Your task to perform on an android device: see creations saved in the google photos Image 0: 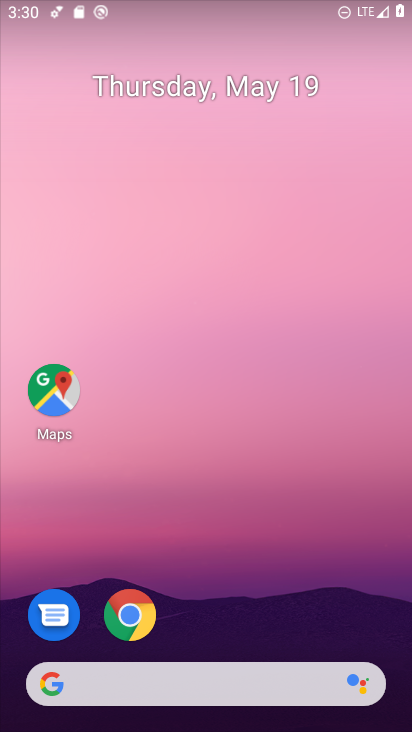
Step 0: drag from (247, 598) to (195, 30)
Your task to perform on an android device: see creations saved in the google photos Image 1: 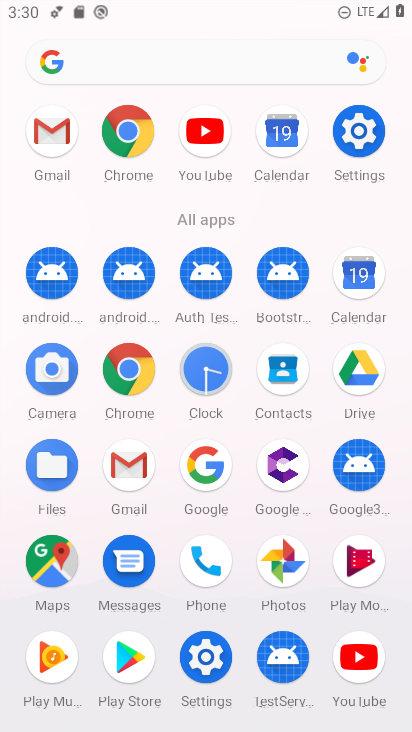
Step 1: click (289, 558)
Your task to perform on an android device: see creations saved in the google photos Image 2: 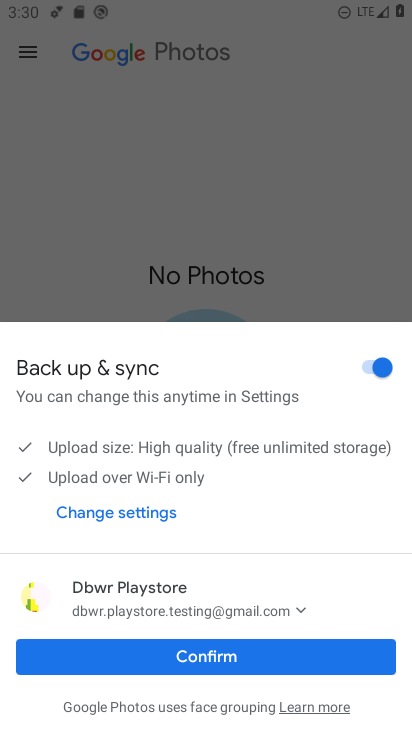
Step 2: click (284, 653)
Your task to perform on an android device: see creations saved in the google photos Image 3: 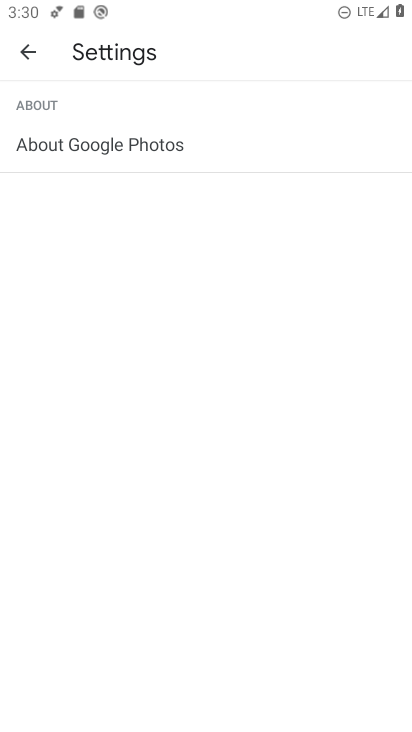
Step 3: click (34, 43)
Your task to perform on an android device: see creations saved in the google photos Image 4: 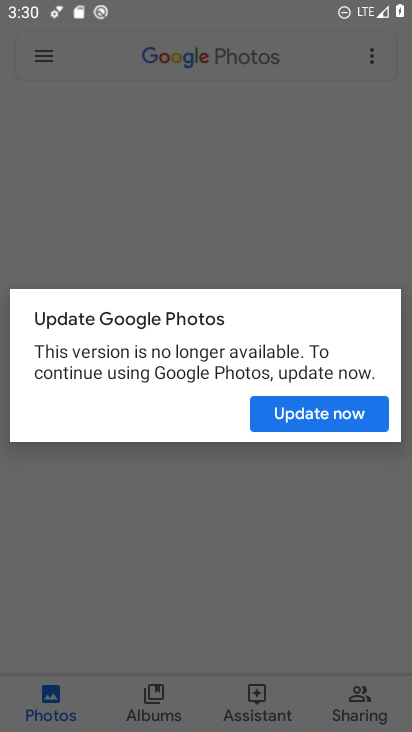
Step 4: click (300, 411)
Your task to perform on an android device: see creations saved in the google photos Image 5: 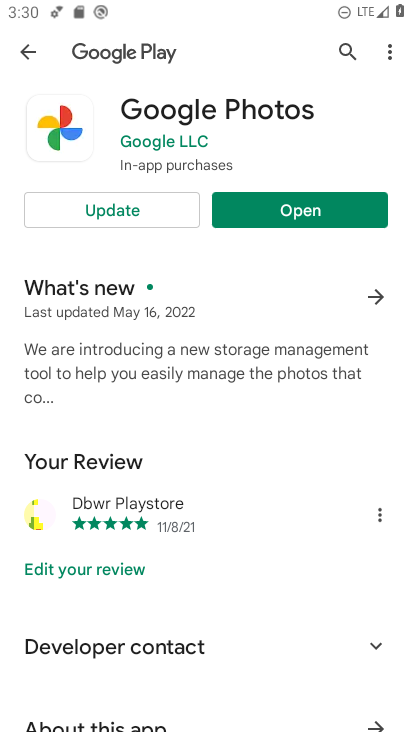
Step 5: click (176, 210)
Your task to perform on an android device: see creations saved in the google photos Image 6: 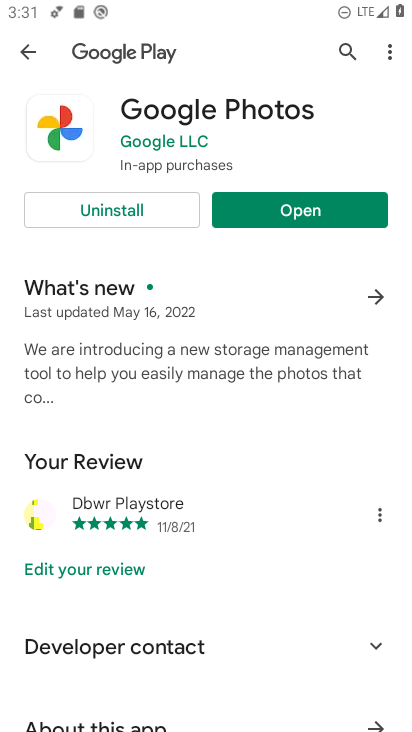
Step 6: click (328, 207)
Your task to perform on an android device: see creations saved in the google photos Image 7: 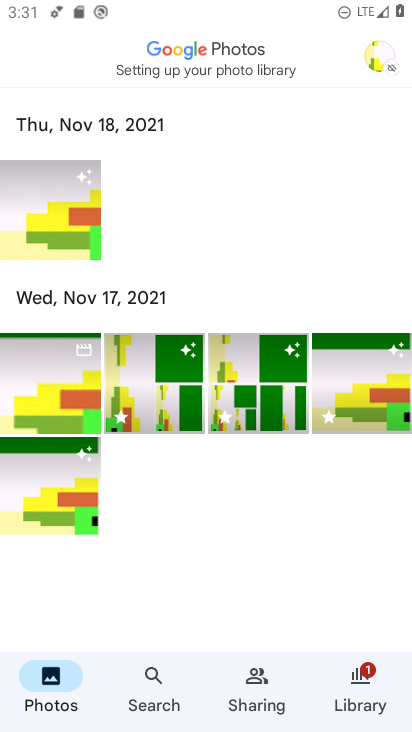
Step 7: click (156, 707)
Your task to perform on an android device: see creations saved in the google photos Image 8: 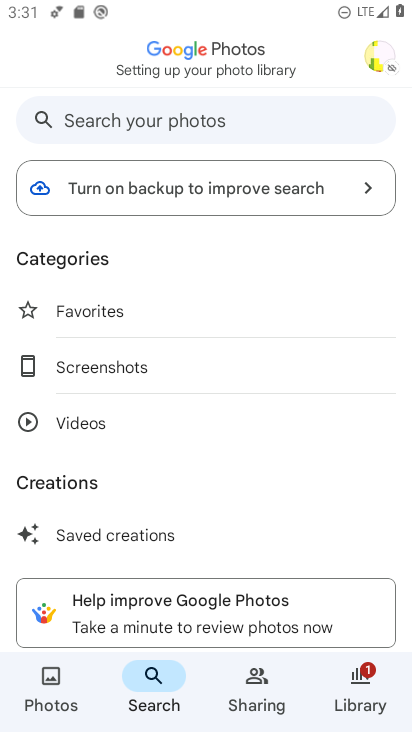
Step 8: click (158, 132)
Your task to perform on an android device: see creations saved in the google photos Image 9: 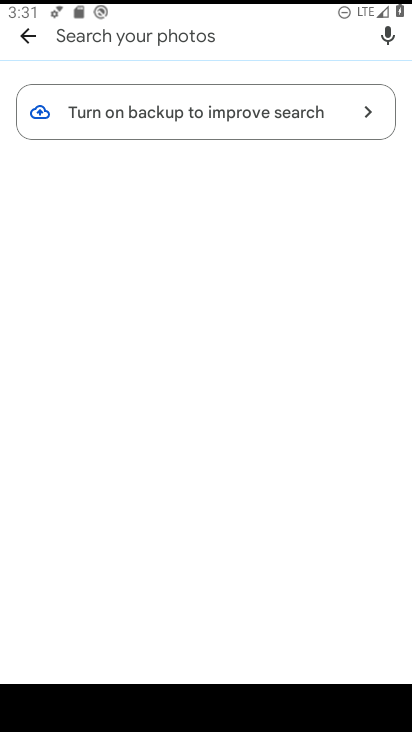
Step 9: click (28, 38)
Your task to perform on an android device: see creations saved in the google photos Image 10: 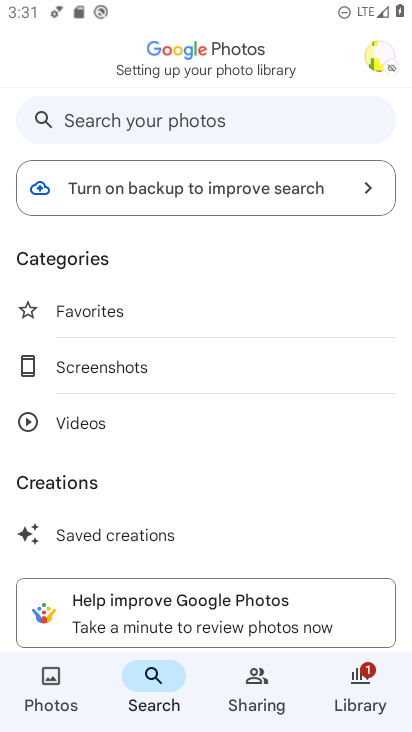
Step 10: click (87, 484)
Your task to perform on an android device: see creations saved in the google photos Image 11: 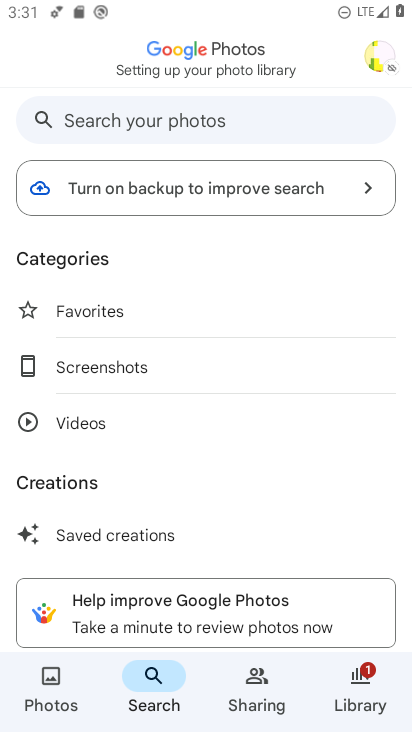
Step 11: click (98, 538)
Your task to perform on an android device: see creations saved in the google photos Image 12: 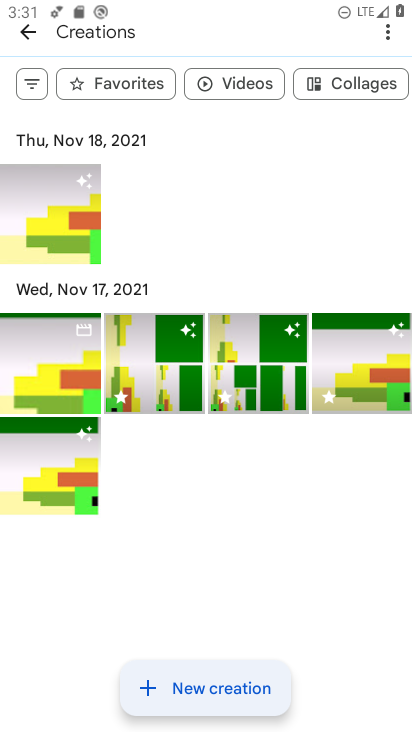
Step 12: task complete